Your task to perform on an android device: Open Google Image 0: 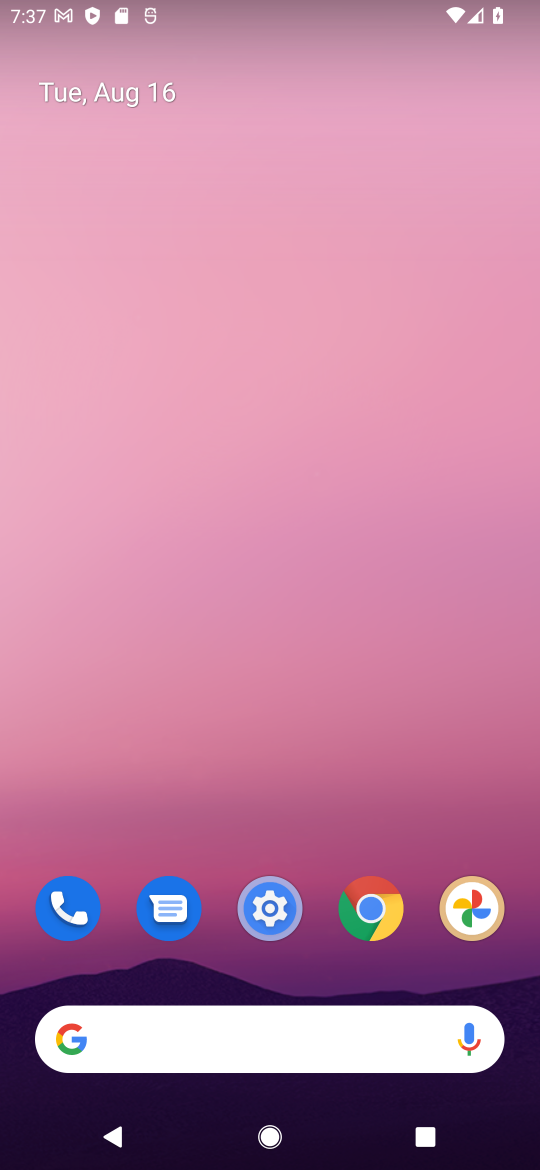
Step 0: click (276, 1063)
Your task to perform on an android device: Open Google Image 1: 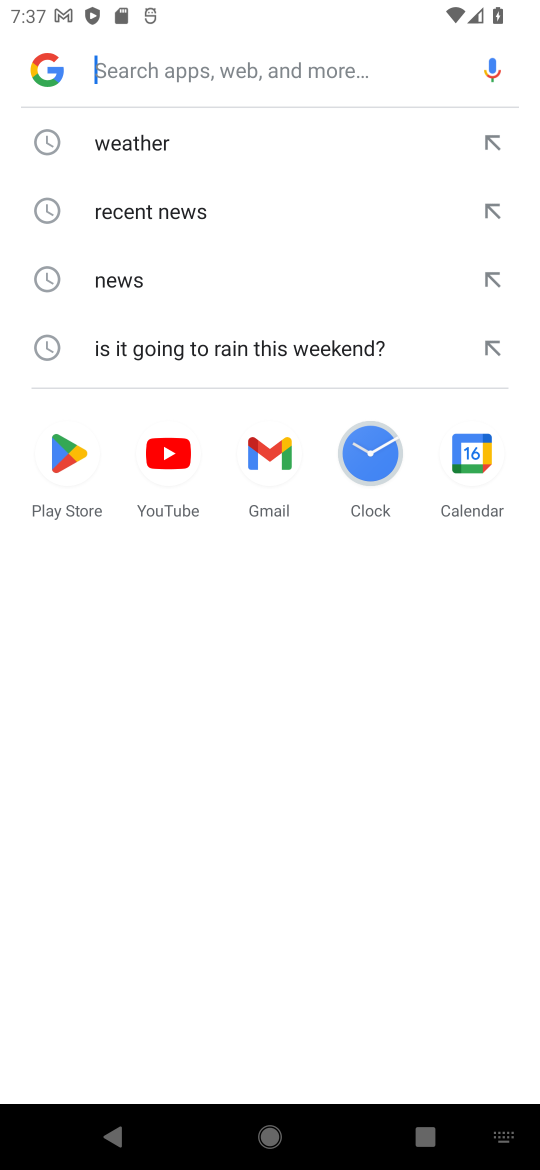
Step 1: task complete